Your task to perform on an android device: Go to Google Image 0: 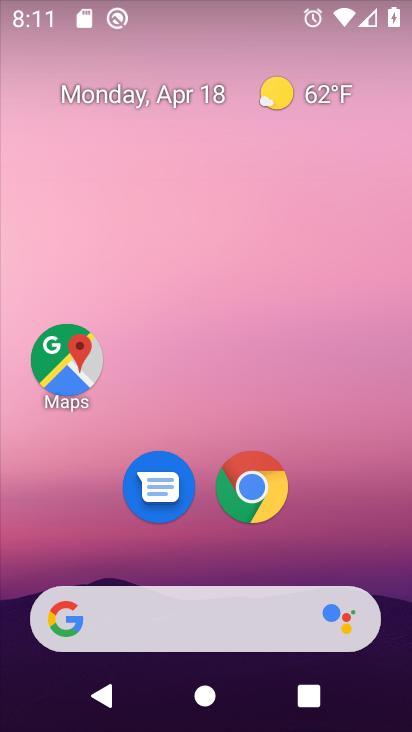
Step 0: press home button
Your task to perform on an android device: Go to Google Image 1: 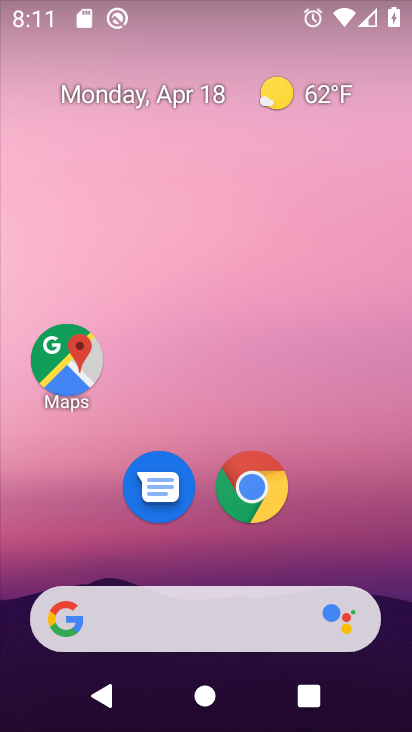
Step 1: drag from (208, 552) to (268, 25)
Your task to perform on an android device: Go to Google Image 2: 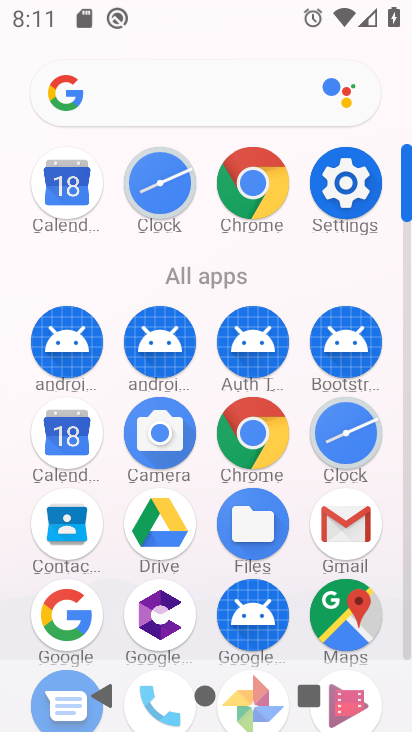
Step 2: click (60, 613)
Your task to perform on an android device: Go to Google Image 3: 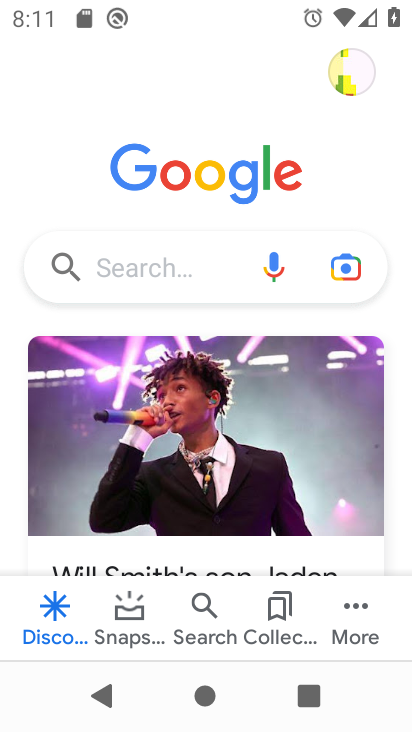
Step 3: task complete